Your task to perform on an android device: turn on airplane mode Image 0: 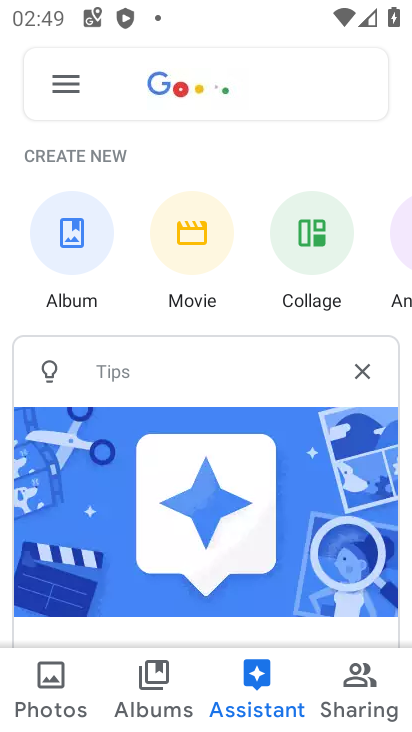
Step 0: press back button
Your task to perform on an android device: turn on airplane mode Image 1: 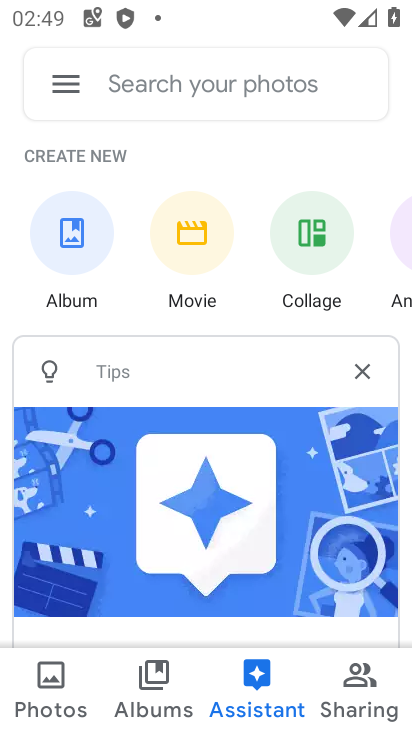
Step 1: press home button
Your task to perform on an android device: turn on airplane mode Image 2: 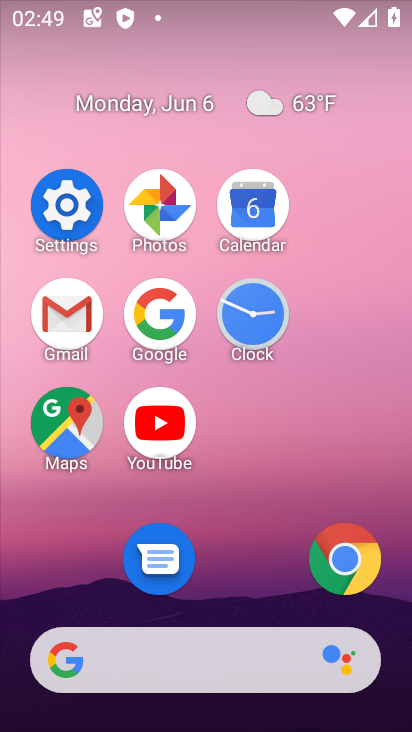
Step 2: click (79, 213)
Your task to perform on an android device: turn on airplane mode Image 3: 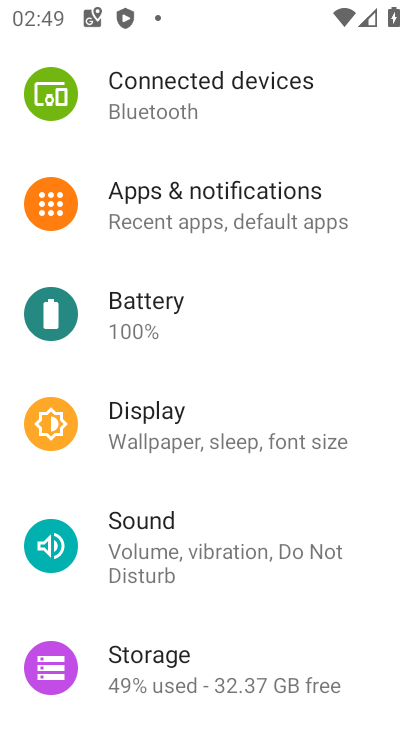
Step 3: drag from (341, 164) to (349, 479)
Your task to perform on an android device: turn on airplane mode Image 4: 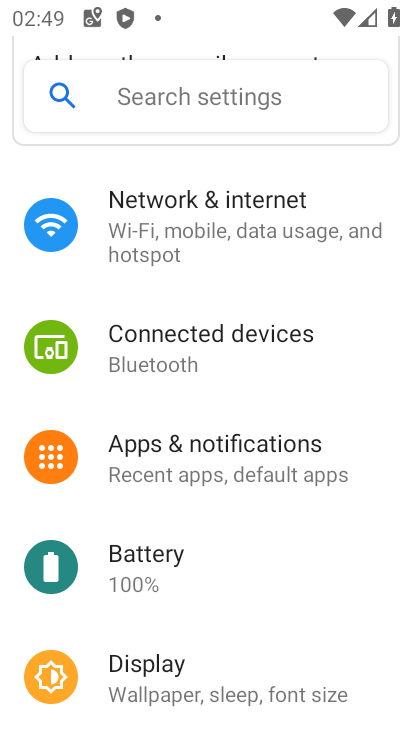
Step 4: click (253, 204)
Your task to perform on an android device: turn on airplane mode Image 5: 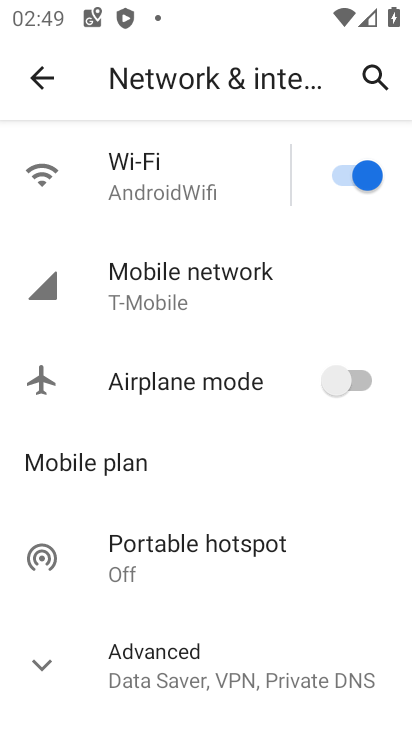
Step 5: click (350, 380)
Your task to perform on an android device: turn on airplane mode Image 6: 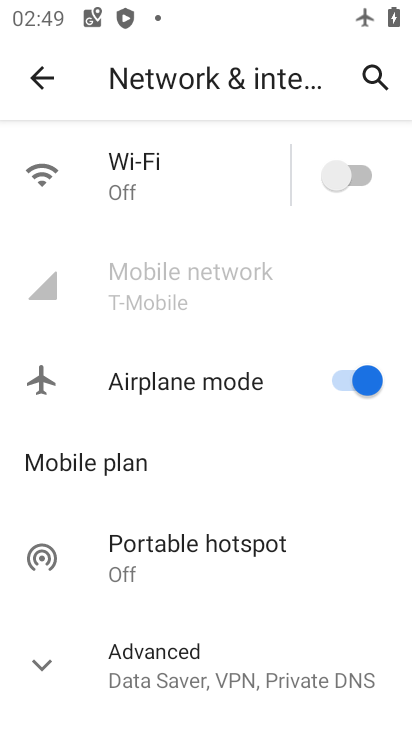
Step 6: task complete